Your task to perform on an android device: Go to sound settings Image 0: 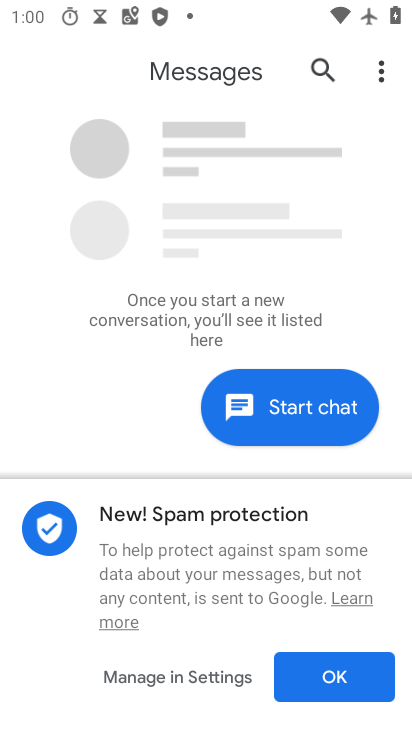
Step 0: press home button
Your task to perform on an android device: Go to sound settings Image 1: 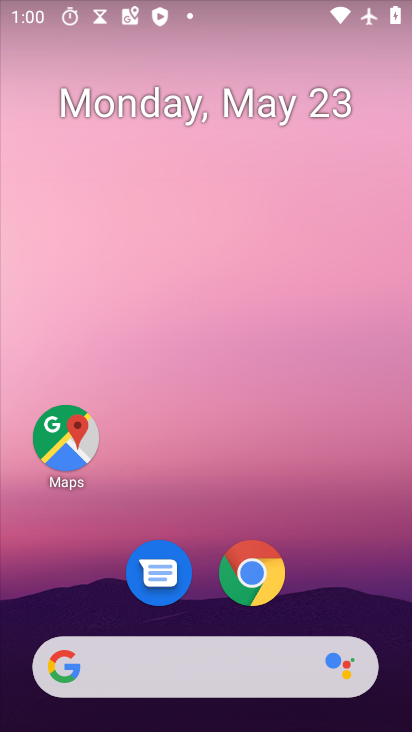
Step 1: drag from (150, 674) to (303, 66)
Your task to perform on an android device: Go to sound settings Image 2: 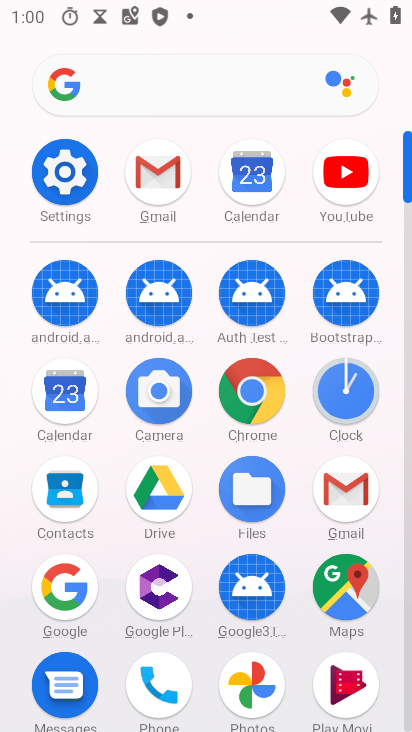
Step 2: click (64, 181)
Your task to perform on an android device: Go to sound settings Image 3: 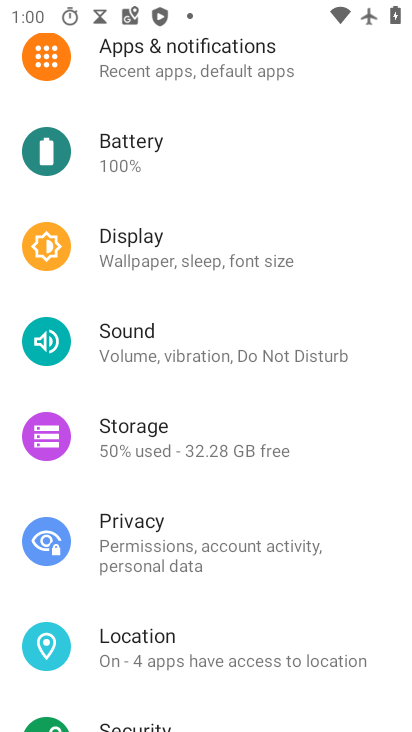
Step 3: click (141, 348)
Your task to perform on an android device: Go to sound settings Image 4: 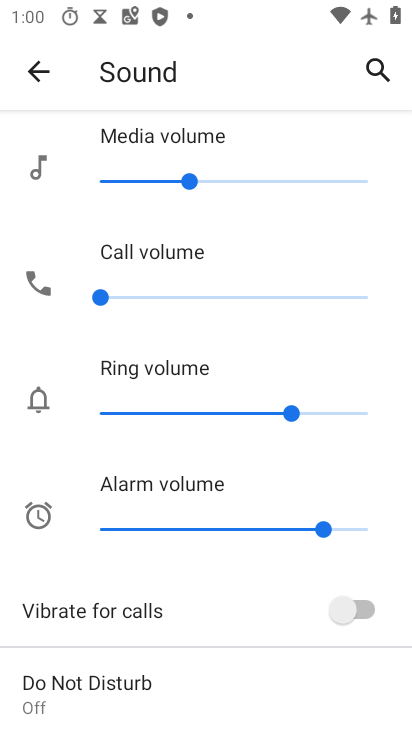
Step 4: task complete